Your task to perform on an android device: turn on javascript in the chrome app Image 0: 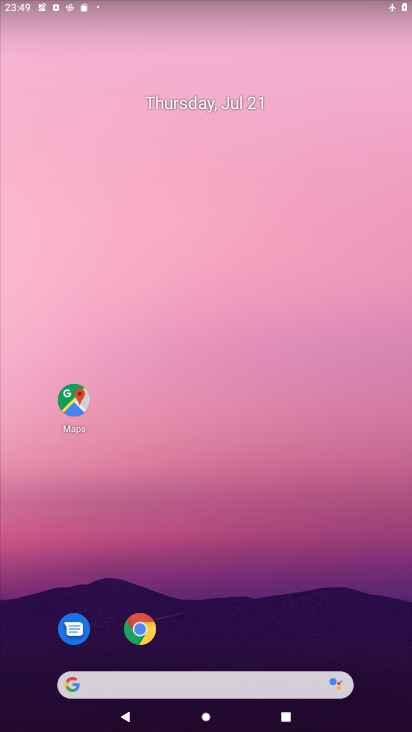
Step 0: drag from (301, 573) to (274, 66)
Your task to perform on an android device: turn on javascript in the chrome app Image 1: 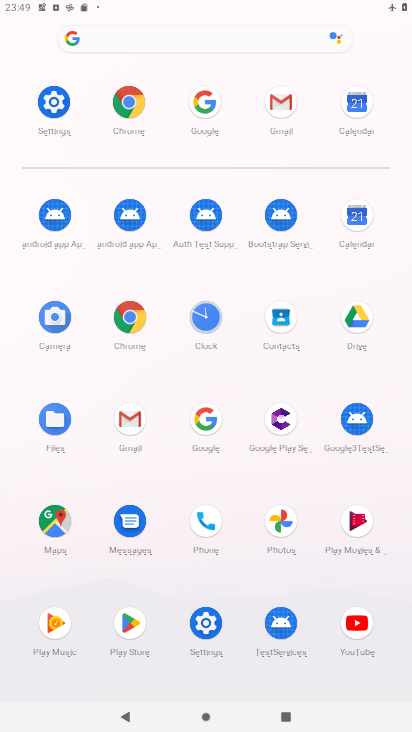
Step 1: click (130, 328)
Your task to perform on an android device: turn on javascript in the chrome app Image 2: 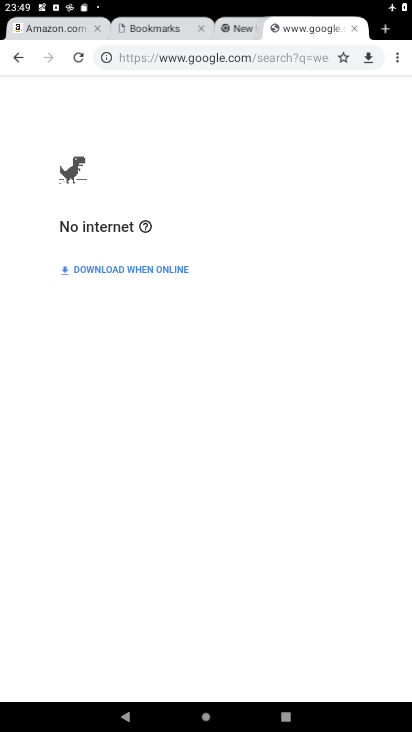
Step 2: click (393, 64)
Your task to perform on an android device: turn on javascript in the chrome app Image 3: 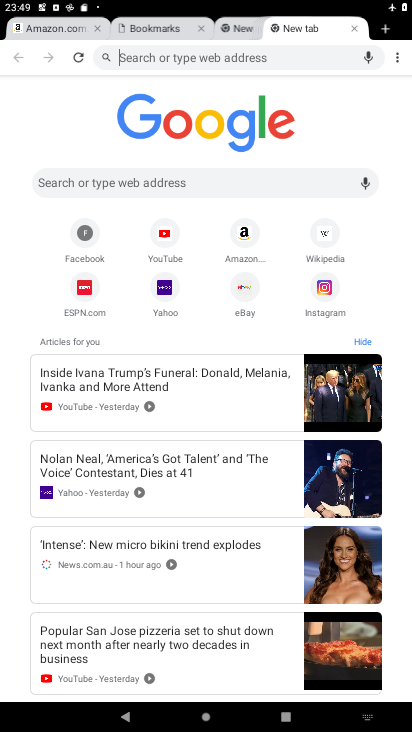
Step 3: click (395, 61)
Your task to perform on an android device: turn on javascript in the chrome app Image 4: 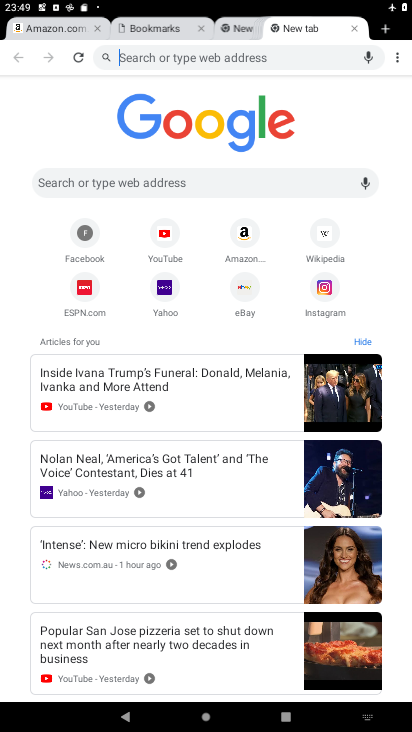
Step 4: click (398, 55)
Your task to perform on an android device: turn on javascript in the chrome app Image 5: 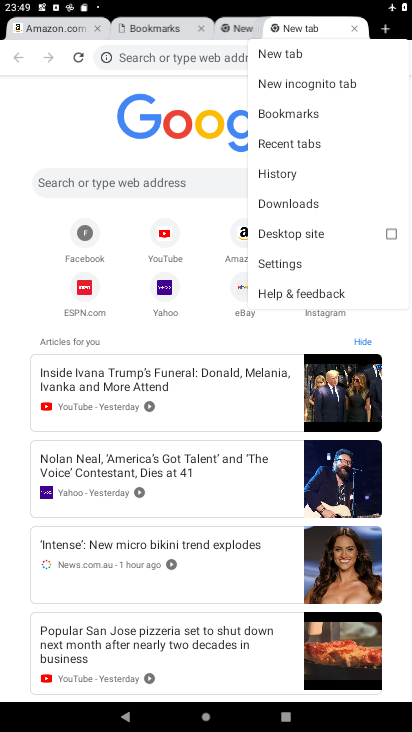
Step 5: click (323, 271)
Your task to perform on an android device: turn on javascript in the chrome app Image 6: 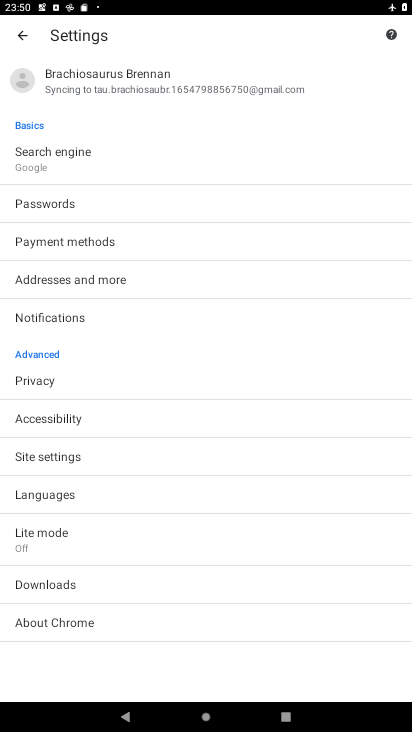
Step 6: click (124, 457)
Your task to perform on an android device: turn on javascript in the chrome app Image 7: 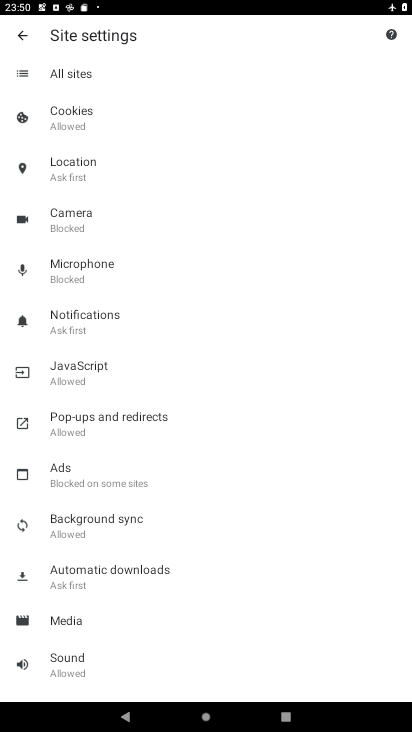
Step 7: click (86, 378)
Your task to perform on an android device: turn on javascript in the chrome app Image 8: 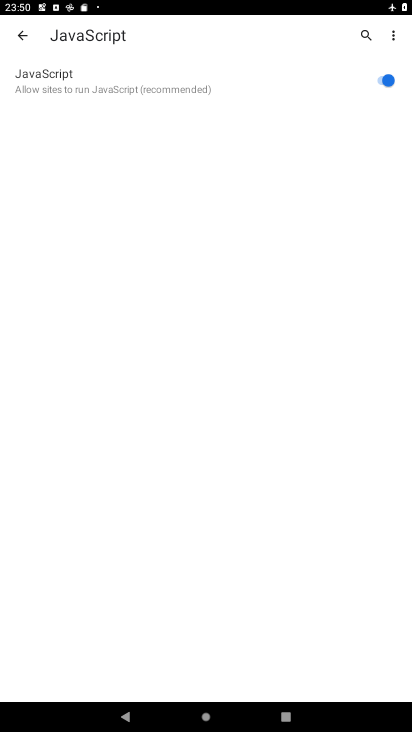
Step 8: task complete